Your task to perform on an android device: toggle location history Image 0: 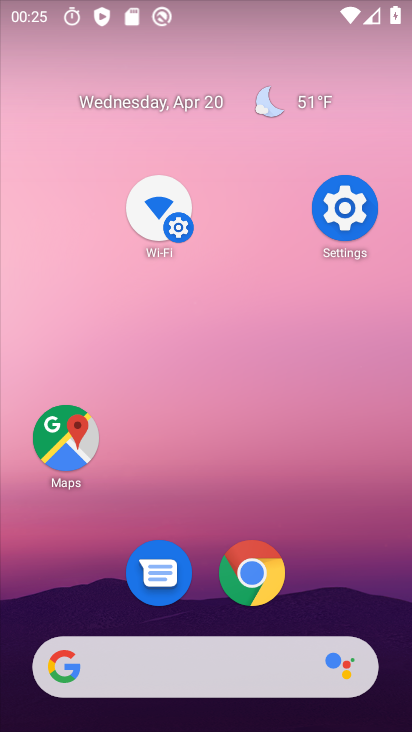
Step 0: click (343, 218)
Your task to perform on an android device: toggle location history Image 1: 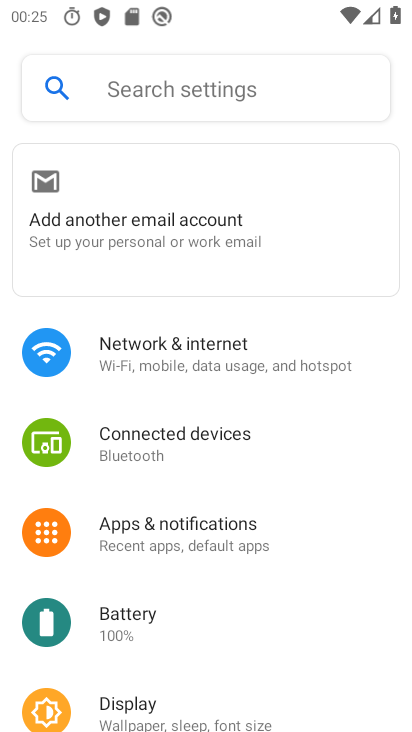
Step 1: drag from (239, 602) to (261, 342)
Your task to perform on an android device: toggle location history Image 2: 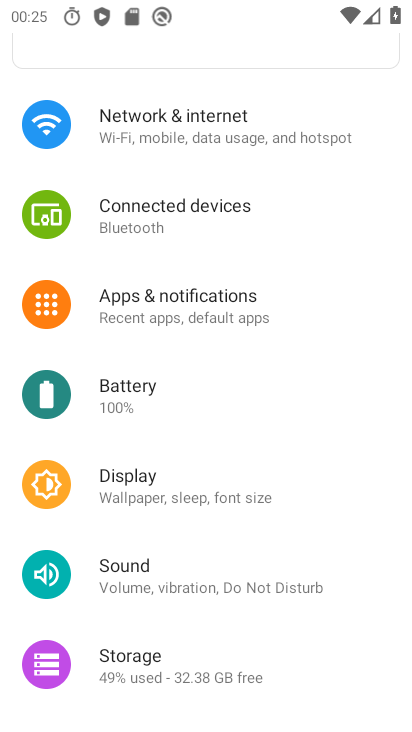
Step 2: drag from (274, 610) to (281, 424)
Your task to perform on an android device: toggle location history Image 3: 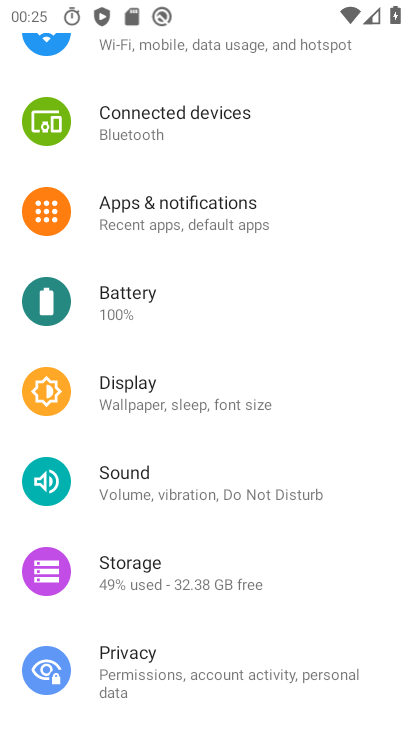
Step 3: drag from (301, 549) to (343, 255)
Your task to perform on an android device: toggle location history Image 4: 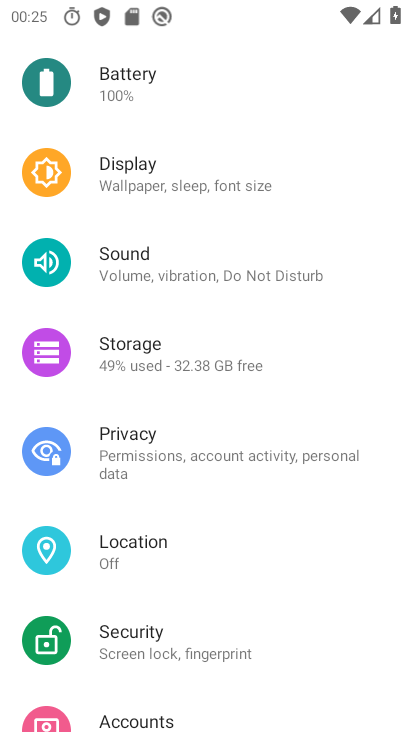
Step 4: drag from (311, 628) to (315, 345)
Your task to perform on an android device: toggle location history Image 5: 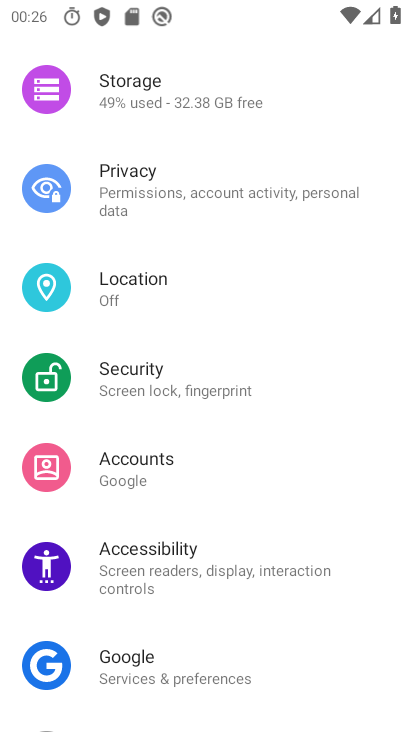
Step 5: click (234, 287)
Your task to perform on an android device: toggle location history Image 6: 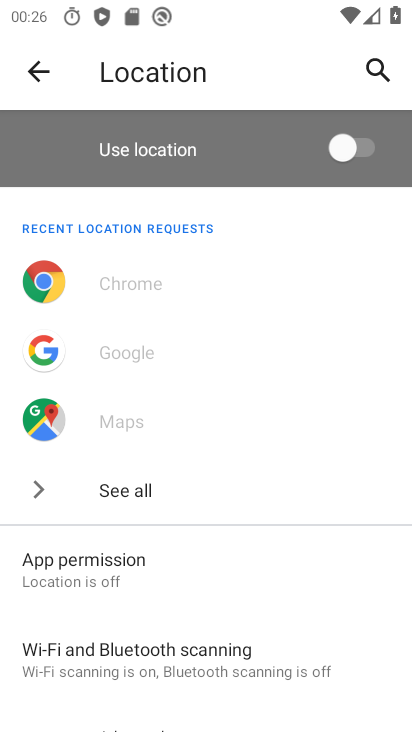
Step 6: drag from (255, 583) to (255, 320)
Your task to perform on an android device: toggle location history Image 7: 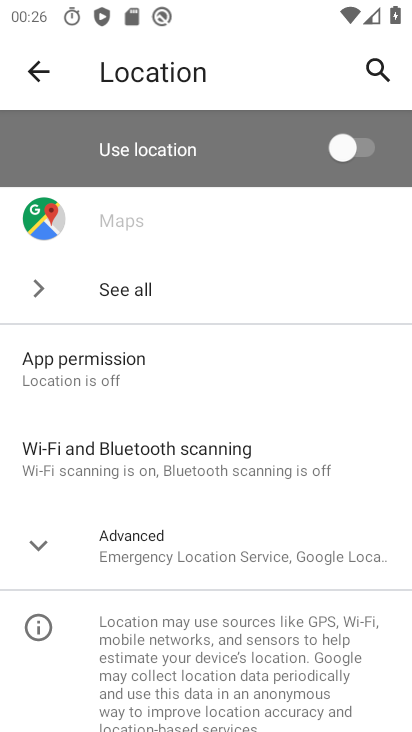
Step 7: click (30, 543)
Your task to perform on an android device: toggle location history Image 8: 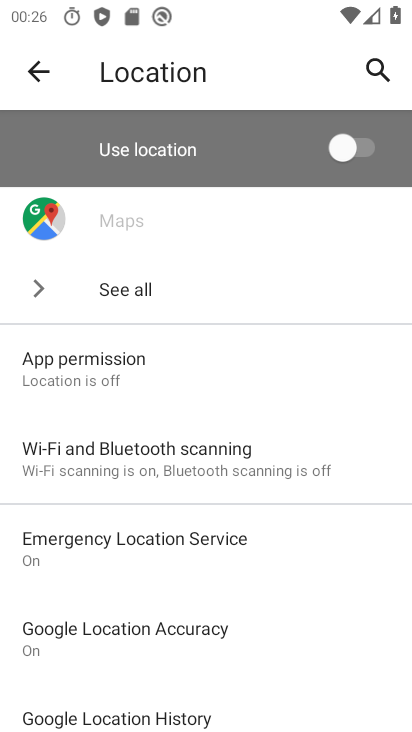
Step 8: click (192, 718)
Your task to perform on an android device: toggle location history Image 9: 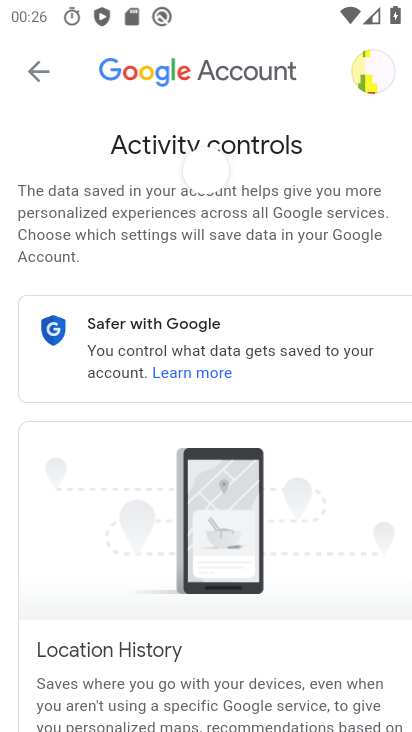
Step 9: drag from (302, 616) to (327, 226)
Your task to perform on an android device: toggle location history Image 10: 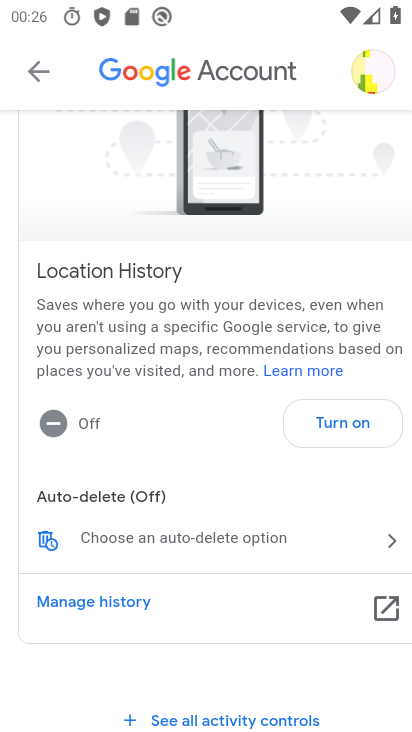
Step 10: click (342, 433)
Your task to perform on an android device: toggle location history Image 11: 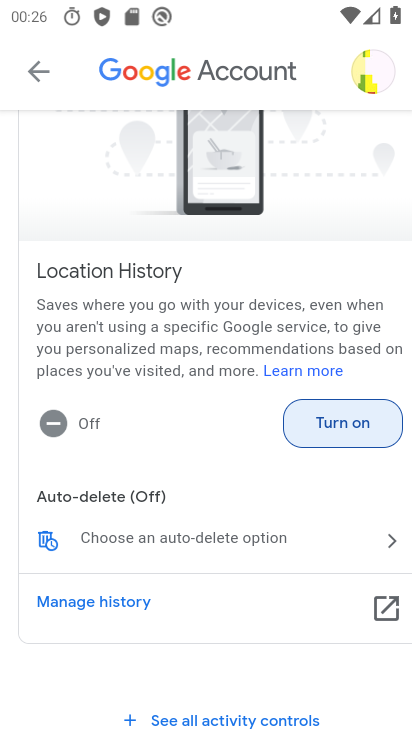
Step 11: click (337, 425)
Your task to perform on an android device: toggle location history Image 12: 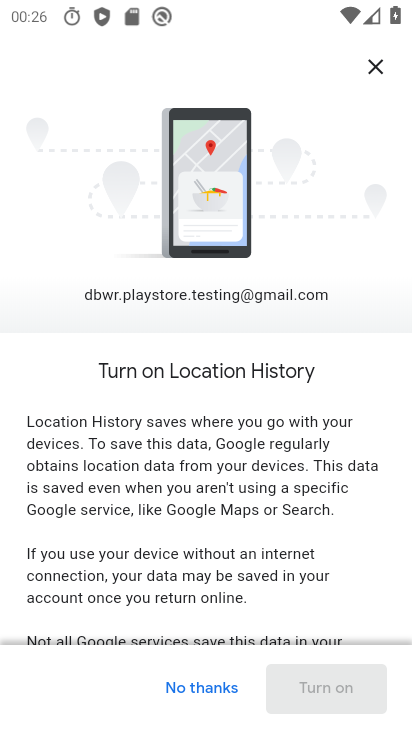
Step 12: click (333, 189)
Your task to perform on an android device: toggle location history Image 13: 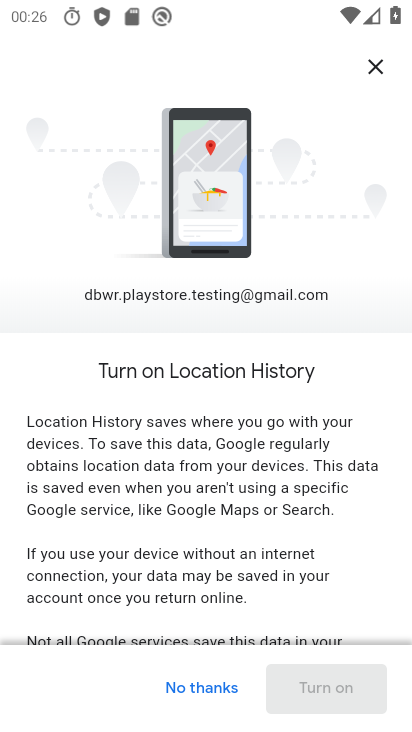
Step 13: drag from (293, 514) to (303, 311)
Your task to perform on an android device: toggle location history Image 14: 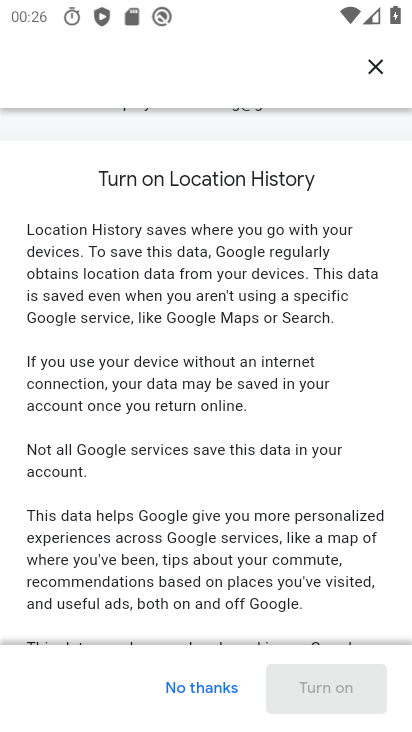
Step 14: drag from (300, 582) to (324, 232)
Your task to perform on an android device: toggle location history Image 15: 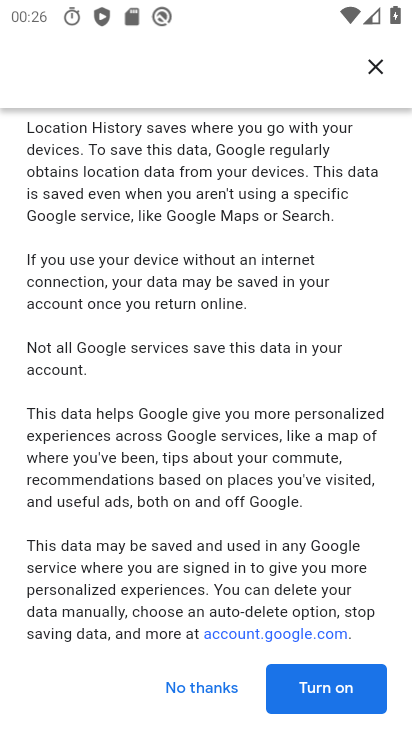
Step 15: click (315, 706)
Your task to perform on an android device: toggle location history Image 16: 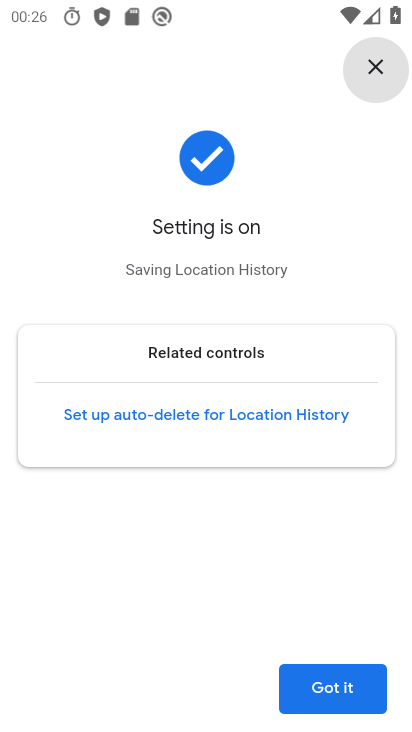
Step 16: click (325, 714)
Your task to perform on an android device: toggle location history Image 17: 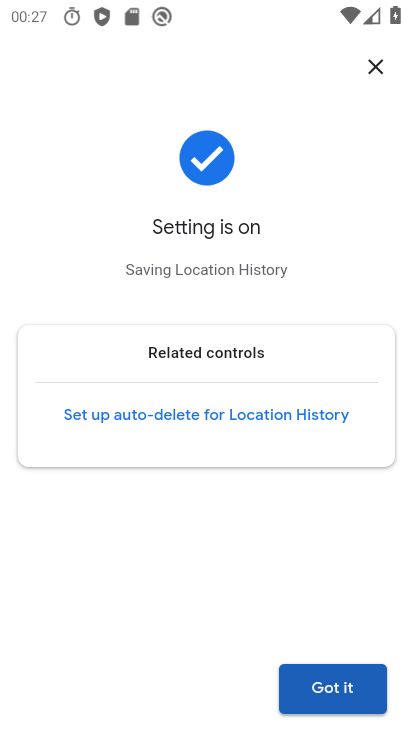
Step 17: task complete